Your task to perform on an android device: Go to Yahoo.com Image 0: 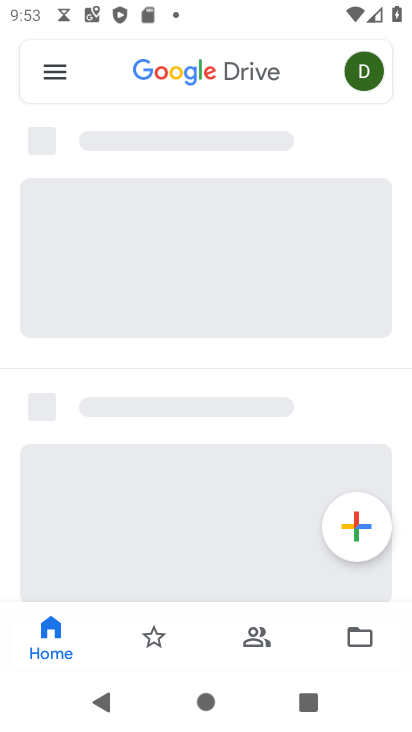
Step 0: press home button
Your task to perform on an android device: Go to Yahoo.com Image 1: 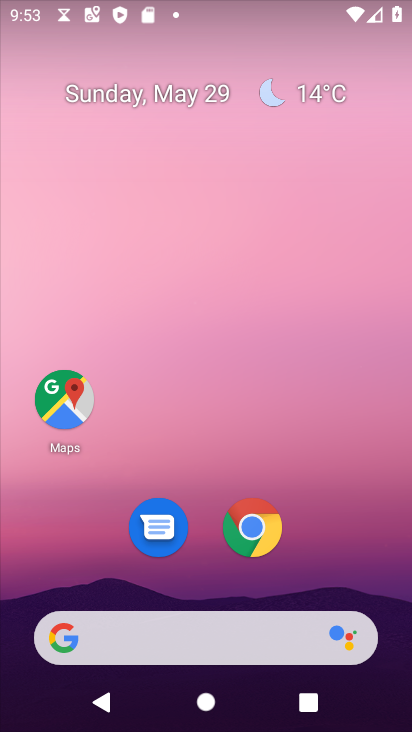
Step 1: click (265, 527)
Your task to perform on an android device: Go to Yahoo.com Image 2: 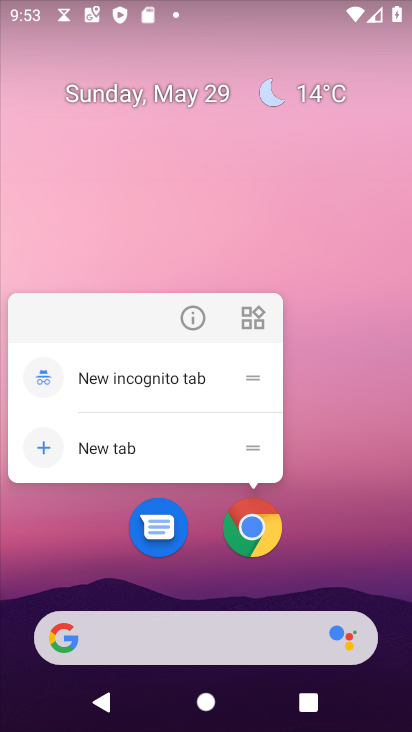
Step 2: click (262, 532)
Your task to perform on an android device: Go to Yahoo.com Image 3: 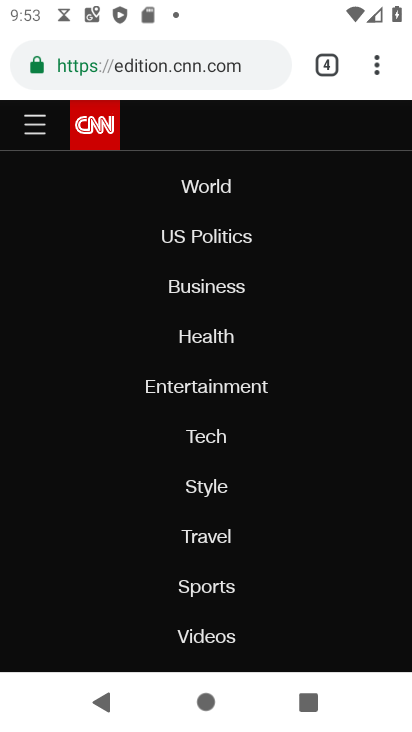
Step 3: drag from (374, 74) to (251, 138)
Your task to perform on an android device: Go to Yahoo.com Image 4: 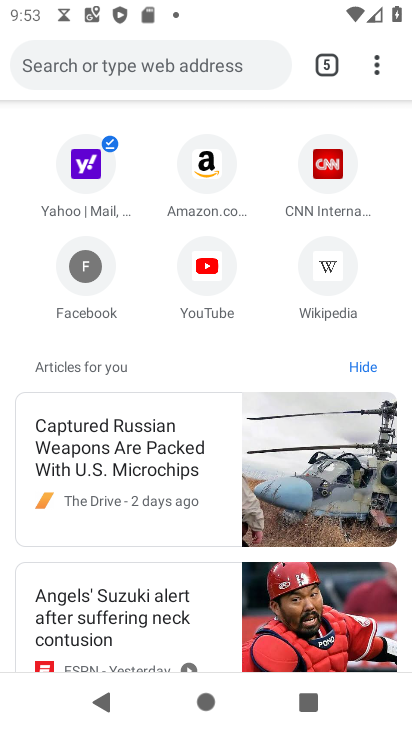
Step 4: click (88, 169)
Your task to perform on an android device: Go to Yahoo.com Image 5: 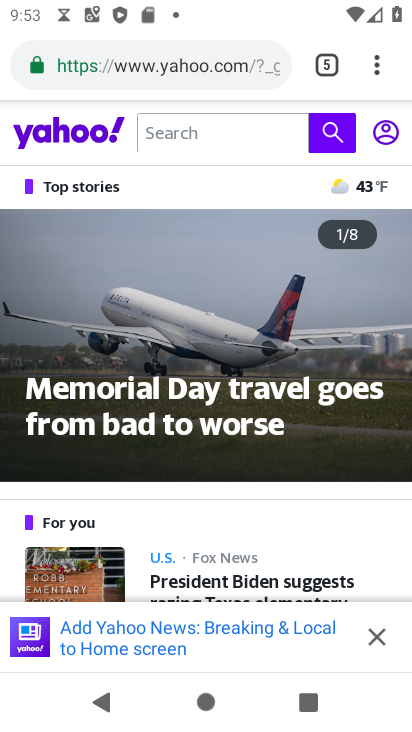
Step 5: task complete